Your task to perform on an android device: What's a good restaurant in Las Vegas? Image 0: 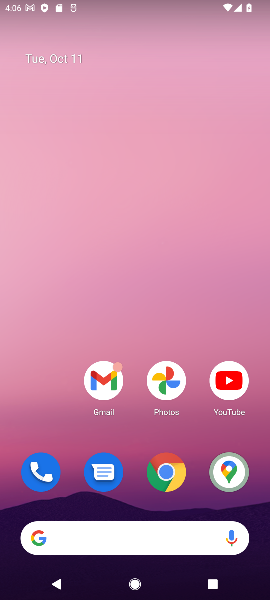
Step 0: click (160, 535)
Your task to perform on an android device: What's a good restaurant in Las Vegas? Image 1: 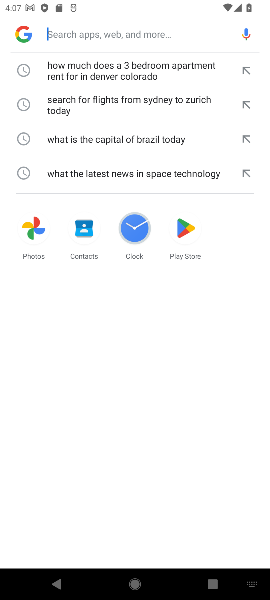
Step 1: type "What's a good restaurant in Las Vegas?"
Your task to perform on an android device: What's a good restaurant in Las Vegas? Image 2: 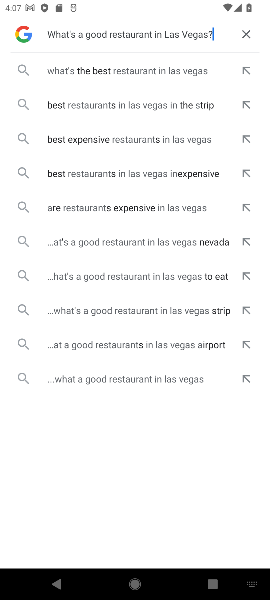
Step 2: click (158, 63)
Your task to perform on an android device: What's a good restaurant in Las Vegas? Image 3: 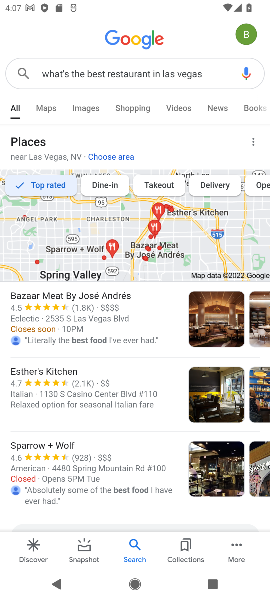
Step 3: task complete